Your task to perform on an android device: turn off data saver in the chrome app Image 0: 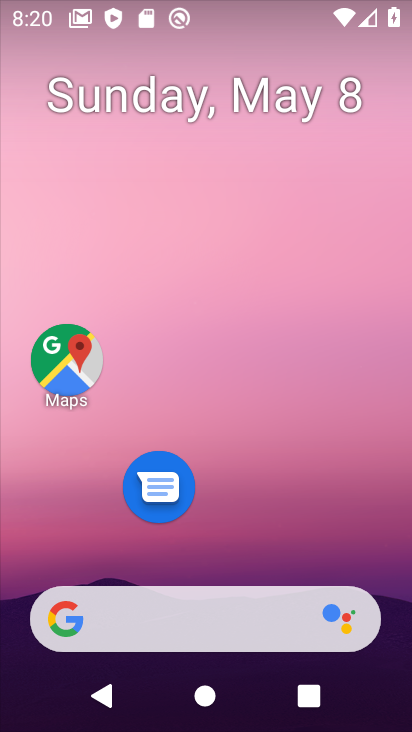
Step 0: drag from (350, 517) to (350, 454)
Your task to perform on an android device: turn off data saver in the chrome app Image 1: 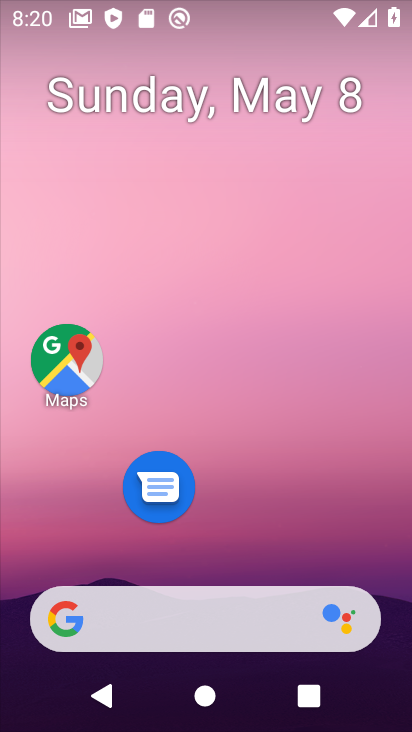
Step 1: drag from (291, 523) to (303, 0)
Your task to perform on an android device: turn off data saver in the chrome app Image 2: 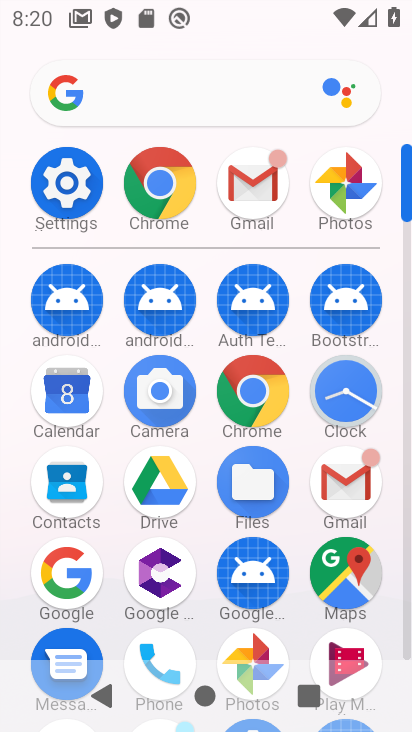
Step 2: click (147, 202)
Your task to perform on an android device: turn off data saver in the chrome app Image 3: 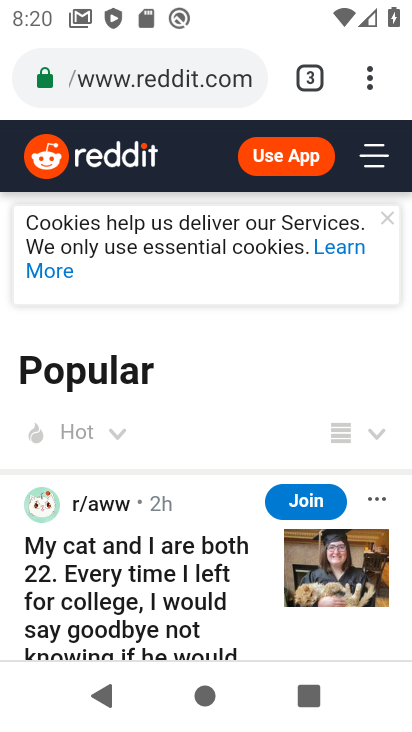
Step 3: click (381, 85)
Your task to perform on an android device: turn off data saver in the chrome app Image 4: 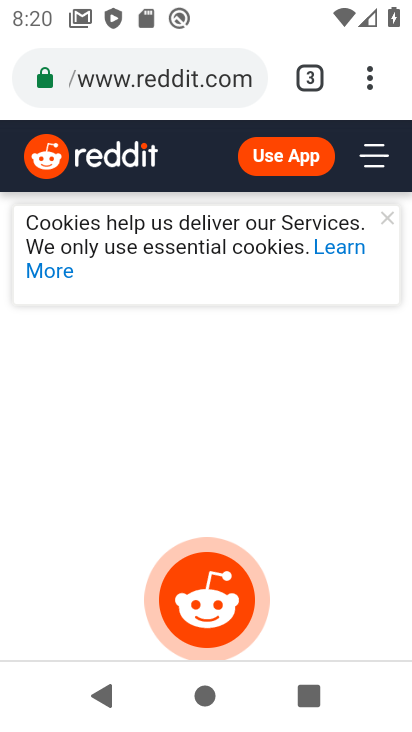
Step 4: click (376, 89)
Your task to perform on an android device: turn off data saver in the chrome app Image 5: 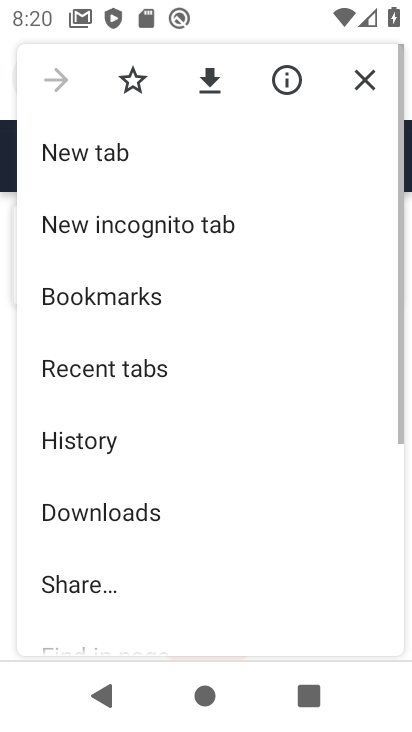
Step 5: drag from (245, 563) to (316, 260)
Your task to perform on an android device: turn off data saver in the chrome app Image 6: 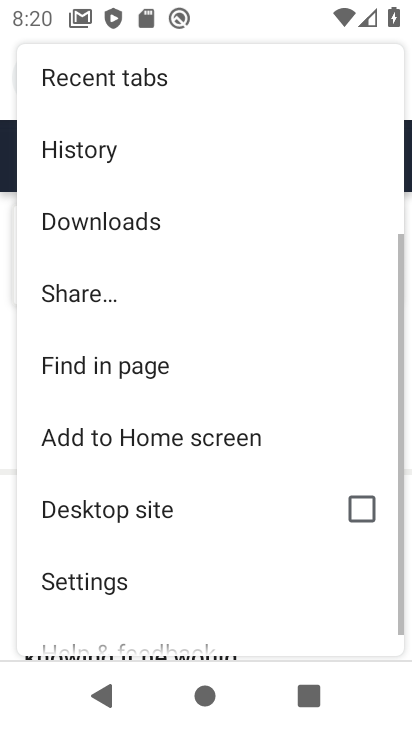
Step 6: click (203, 595)
Your task to perform on an android device: turn off data saver in the chrome app Image 7: 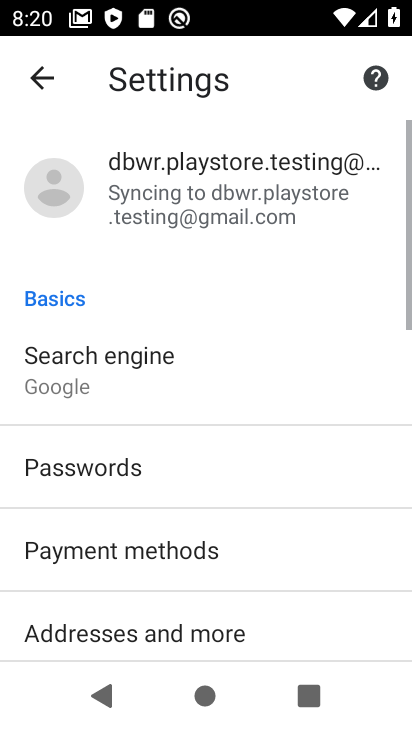
Step 7: drag from (220, 471) to (294, 188)
Your task to perform on an android device: turn off data saver in the chrome app Image 8: 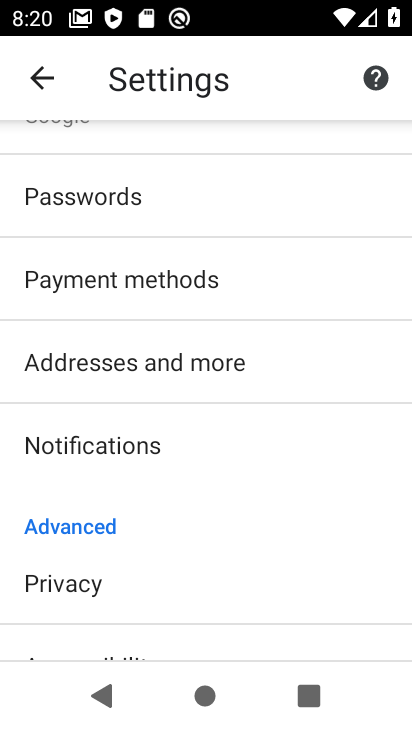
Step 8: drag from (207, 598) to (266, 417)
Your task to perform on an android device: turn off data saver in the chrome app Image 9: 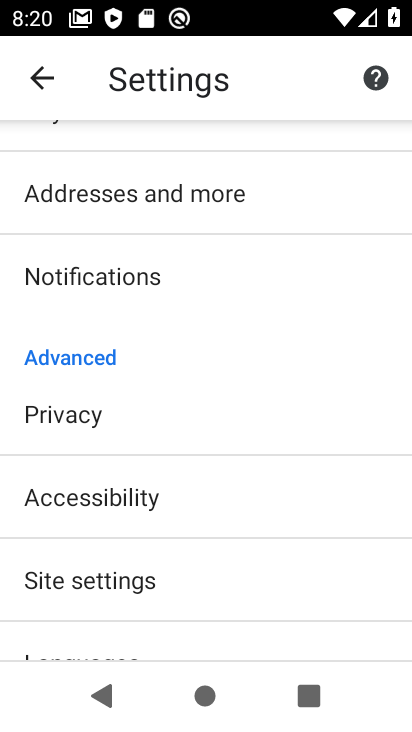
Step 9: click (173, 592)
Your task to perform on an android device: turn off data saver in the chrome app Image 10: 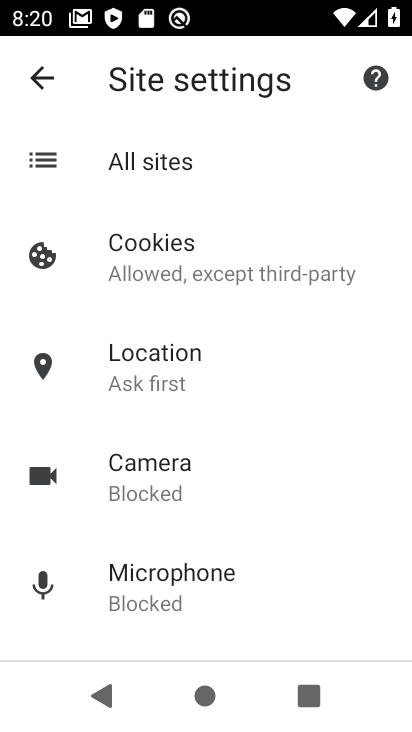
Step 10: drag from (191, 589) to (288, 296)
Your task to perform on an android device: turn off data saver in the chrome app Image 11: 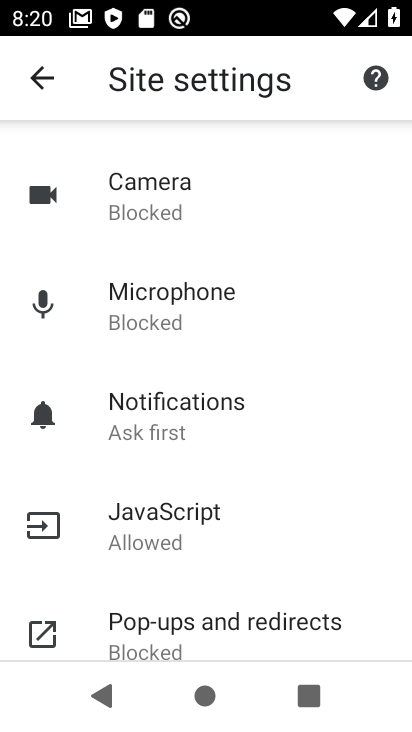
Step 11: drag from (213, 625) to (309, 298)
Your task to perform on an android device: turn off data saver in the chrome app Image 12: 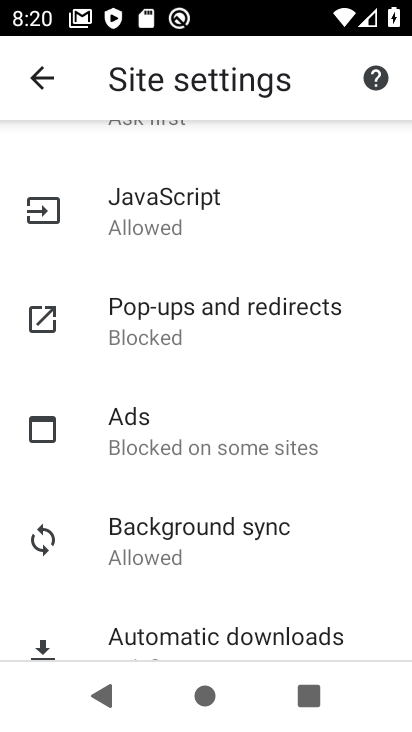
Step 12: drag from (183, 645) to (219, 377)
Your task to perform on an android device: turn off data saver in the chrome app Image 13: 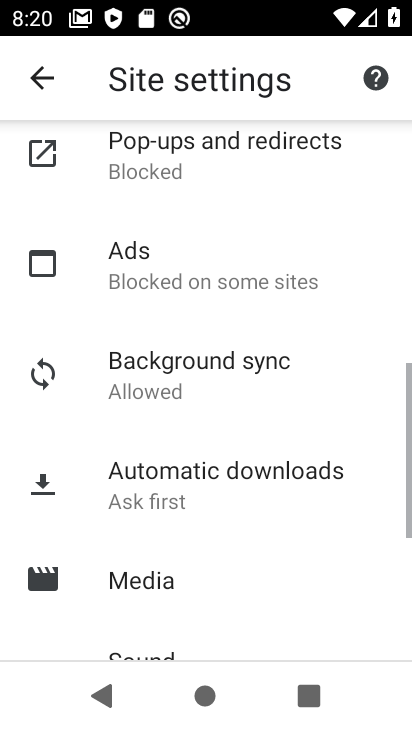
Step 13: click (219, 377)
Your task to perform on an android device: turn off data saver in the chrome app Image 14: 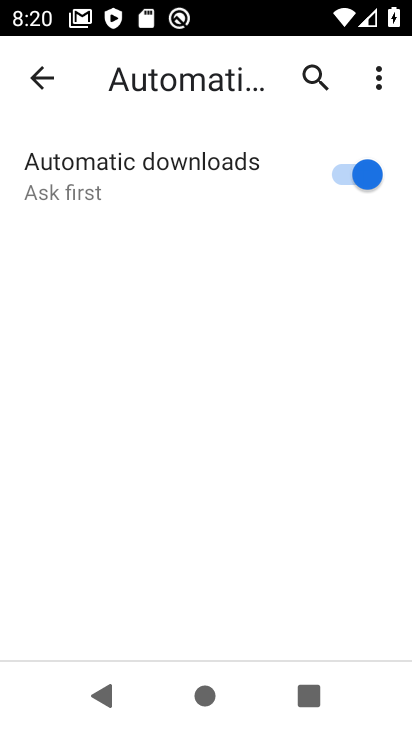
Step 14: click (26, 88)
Your task to perform on an android device: turn off data saver in the chrome app Image 15: 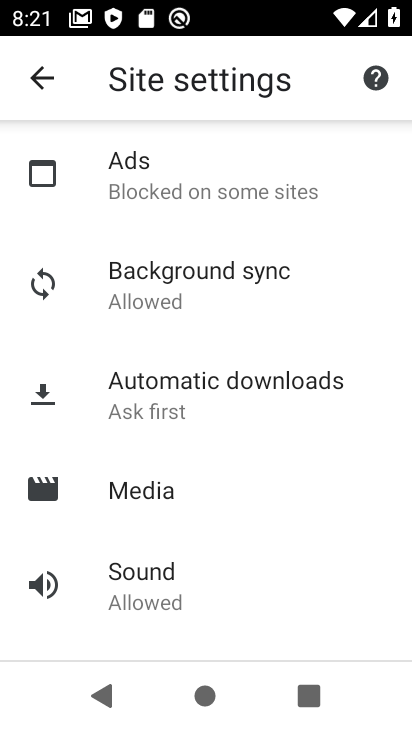
Step 15: click (46, 75)
Your task to perform on an android device: turn off data saver in the chrome app Image 16: 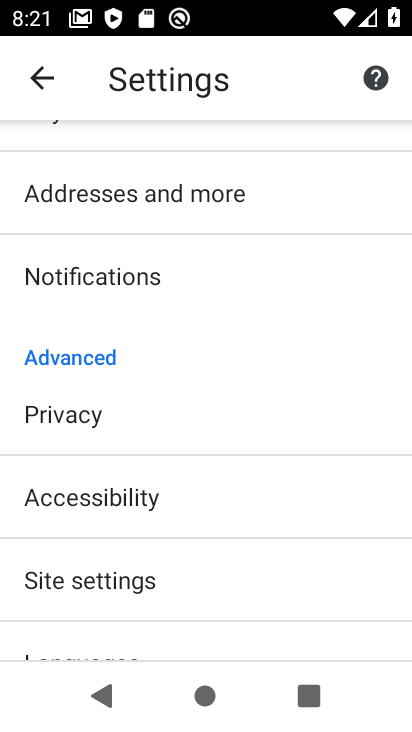
Step 16: drag from (158, 638) to (246, 232)
Your task to perform on an android device: turn off data saver in the chrome app Image 17: 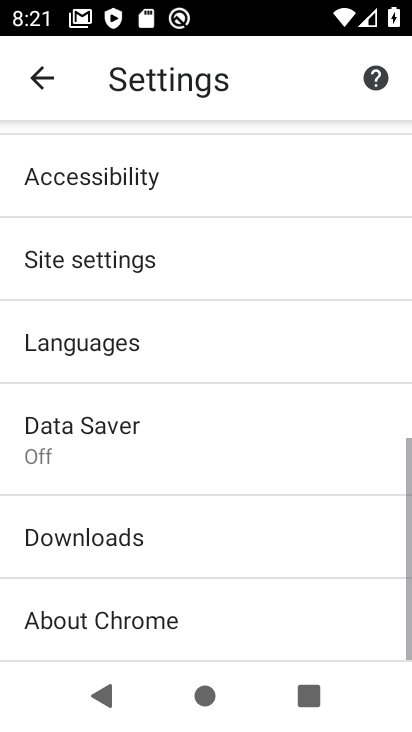
Step 17: click (192, 410)
Your task to perform on an android device: turn off data saver in the chrome app Image 18: 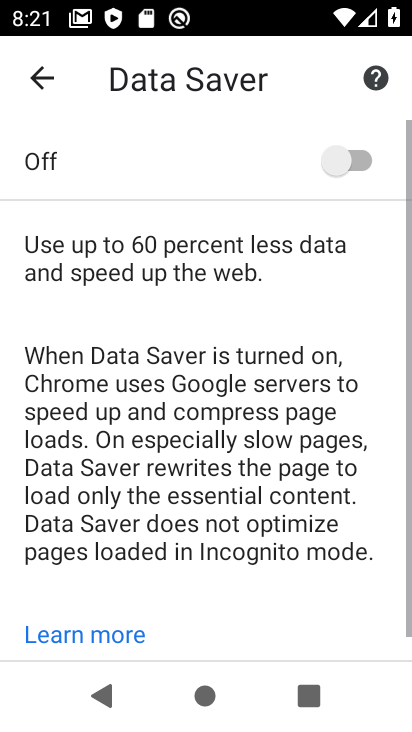
Step 18: click (366, 147)
Your task to perform on an android device: turn off data saver in the chrome app Image 19: 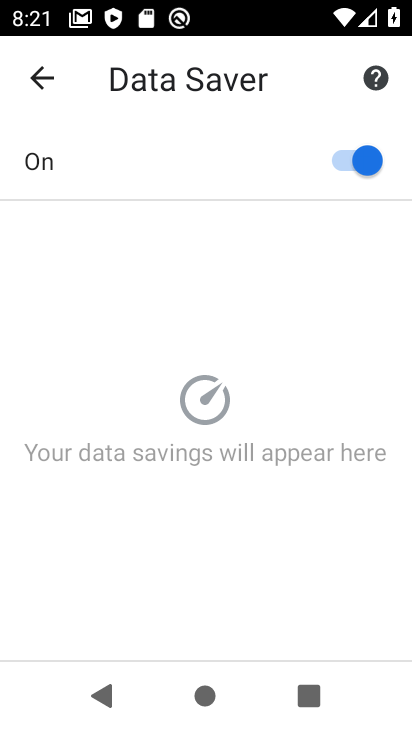
Step 19: task complete